Your task to perform on an android device: Go to battery settings Image 0: 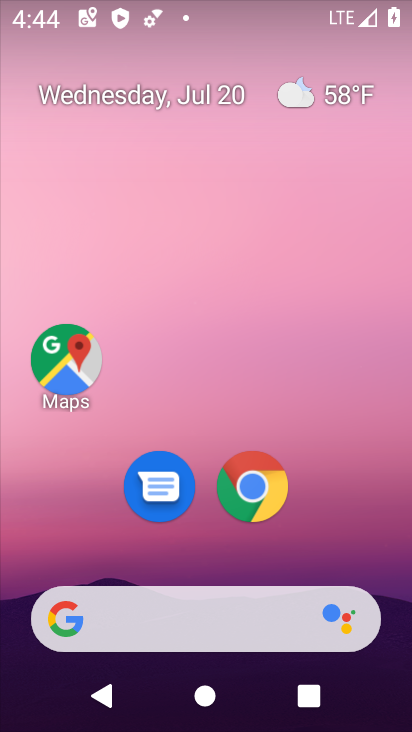
Step 0: drag from (114, 547) to (211, 7)
Your task to perform on an android device: Go to battery settings Image 1: 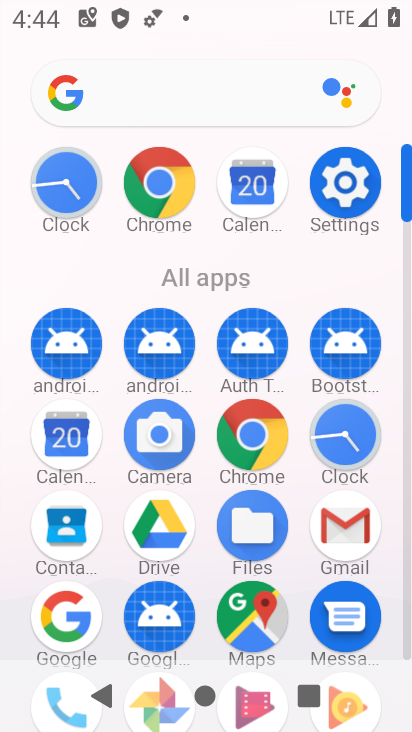
Step 1: click (331, 185)
Your task to perform on an android device: Go to battery settings Image 2: 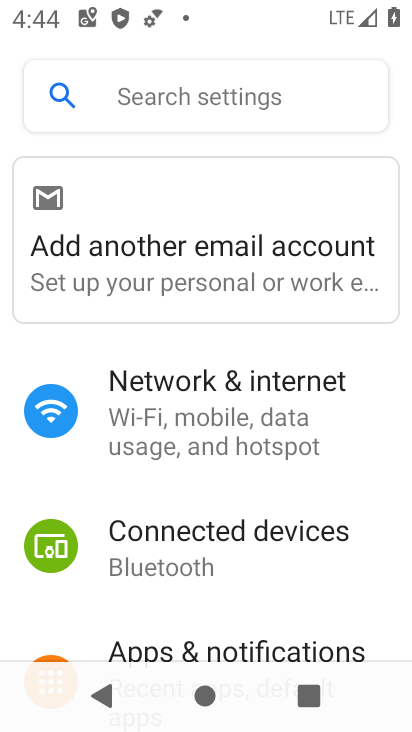
Step 2: drag from (186, 582) to (255, 22)
Your task to perform on an android device: Go to battery settings Image 3: 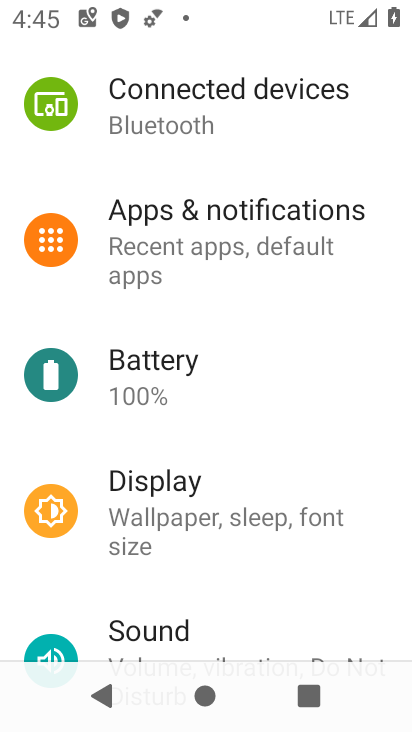
Step 3: click (189, 377)
Your task to perform on an android device: Go to battery settings Image 4: 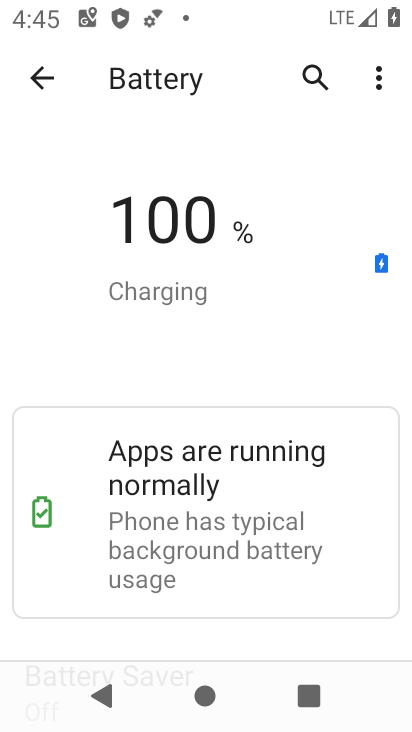
Step 4: task complete